Your task to perform on an android device: Open Android settings Image 0: 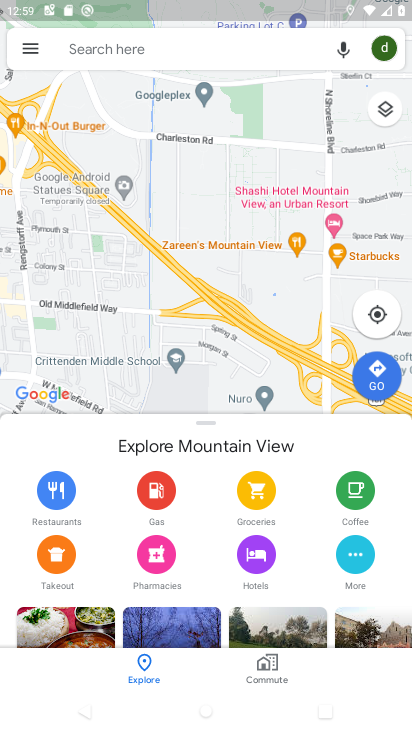
Step 0: press home button
Your task to perform on an android device: Open Android settings Image 1: 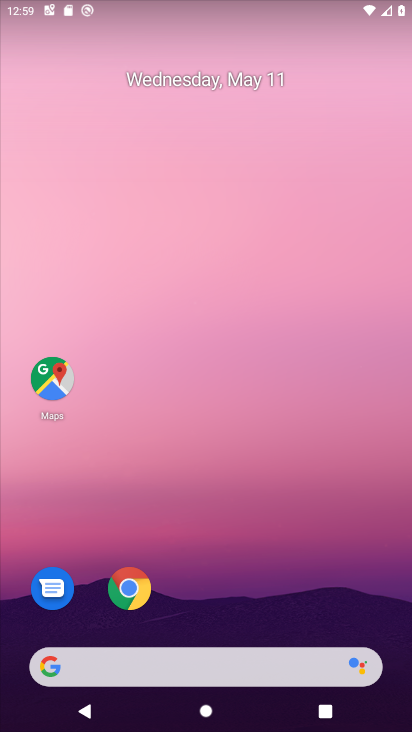
Step 1: drag from (242, 641) to (264, 318)
Your task to perform on an android device: Open Android settings Image 2: 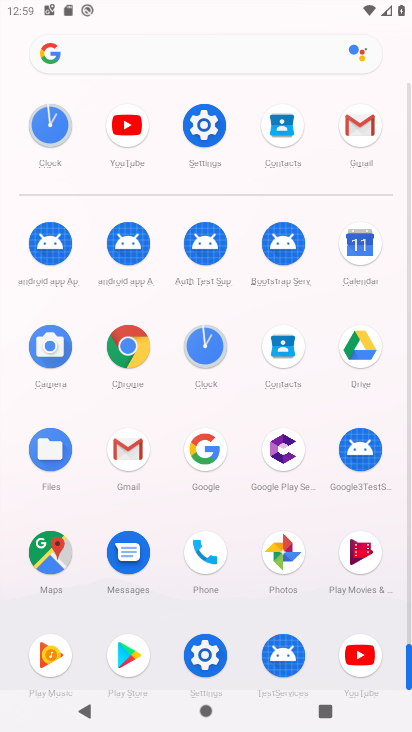
Step 2: click (205, 117)
Your task to perform on an android device: Open Android settings Image 3: 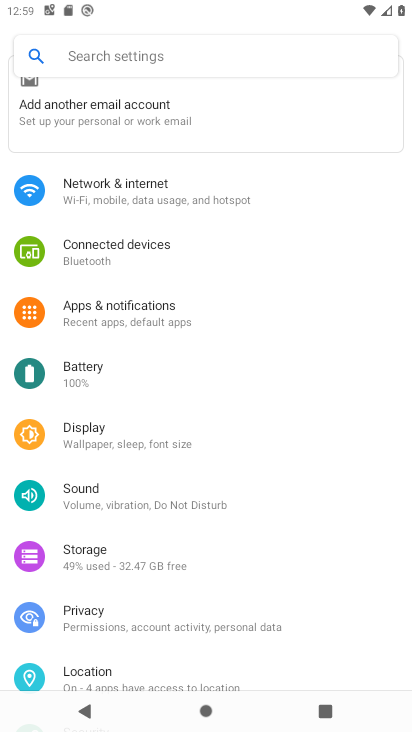
Step 3: task complete